Your task to perform on an android device: Is it going to rain tomorrow? Image 0: 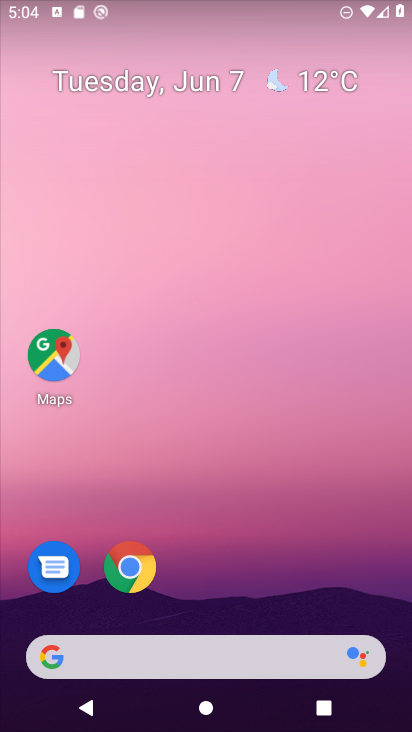
Step 0: drag from (323, 647) to (391, 37)
Your task to perform on an android device: Is it going to rain tomorrow? Image 1: 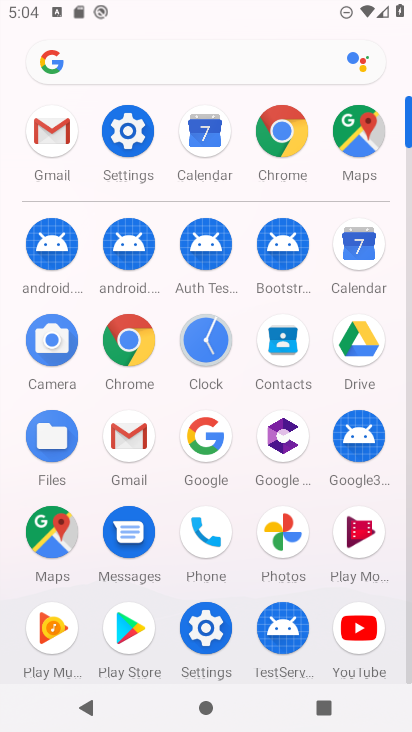
Step 1: click (123, 338)
Your task to perform on an android device: Is it going to rain tomorrow? Image 2: 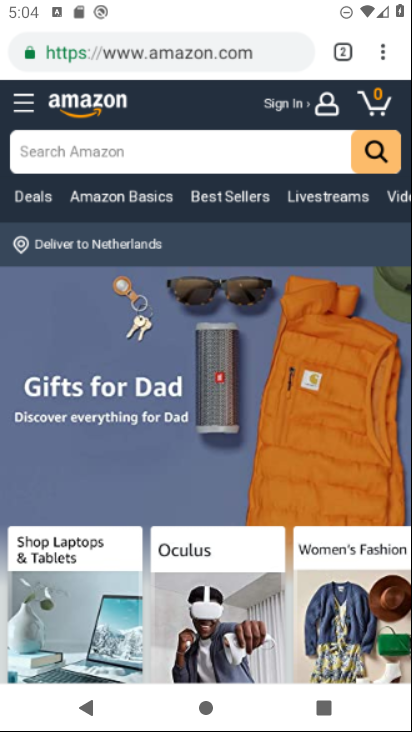
Step 2: press home button
Your task to perform on an android device: Is it going to rain tomorrow? Image 3: 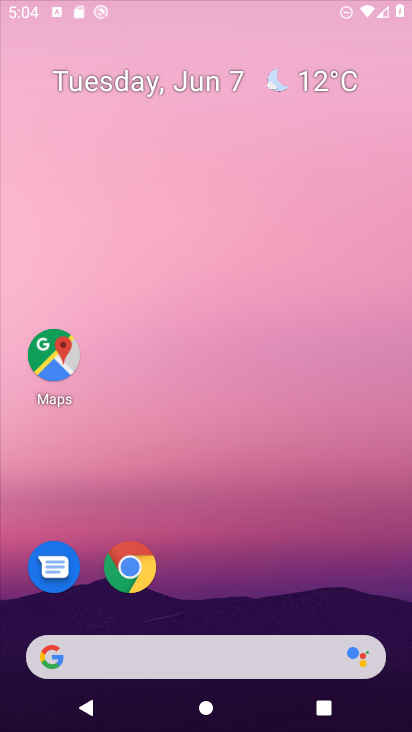
Step 3: drag from (36, 225) to (351, 260)
Your task to perform on an android device: Is it going to rain tomorrow? Image 4: 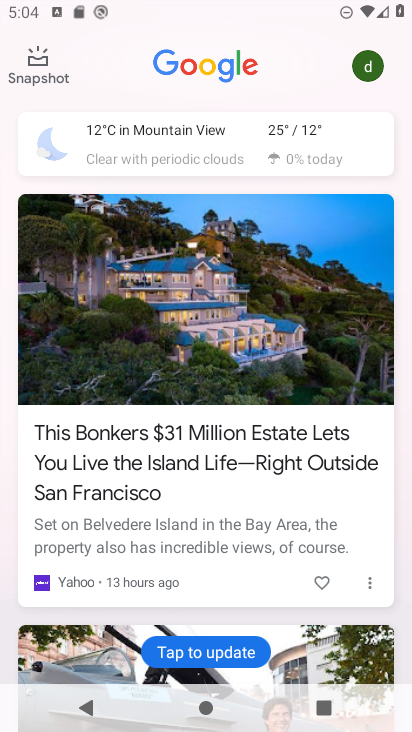
Step 4: click (212, 144)
Your task to perform on an android device: Is it going to rain tomorrow? Image 5: 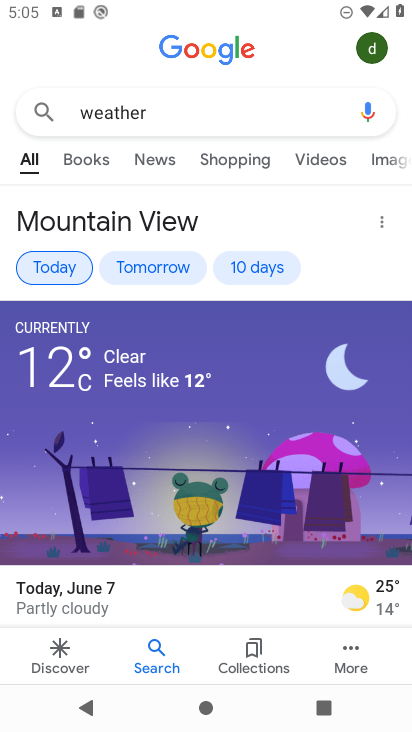
Step 5: click (151, 257)
Your task to perform on an android device: Is it going to rain tomorrow? Image 6: 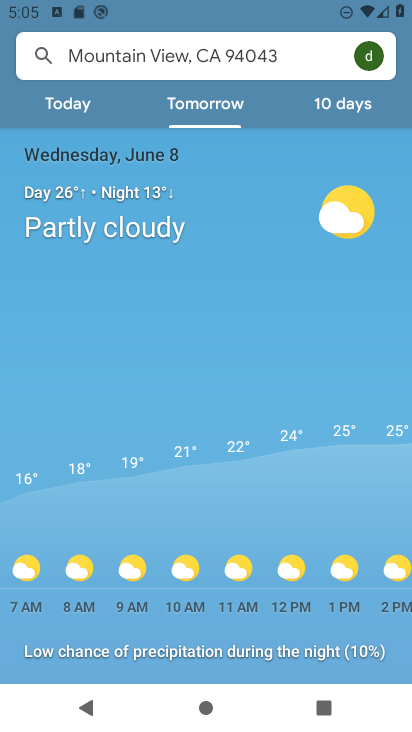
Step 6: task complete